Your task to perform on an android device: Go to privacy settings Image 0: 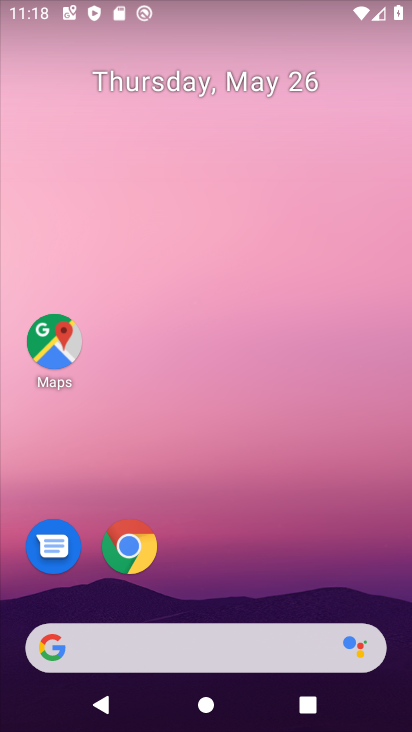
Step 0: click (129, 545)
Your task to perform on an android device: Go to privacy settings Image 1: 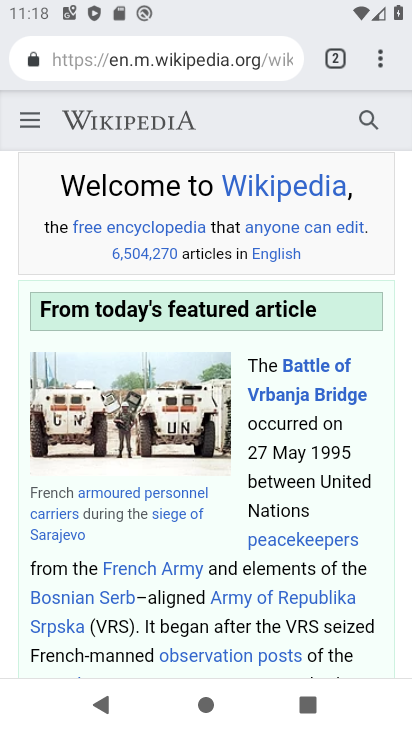
Step 1: click (362, 61)
Your task to perform on an android device: Go to privacy settings Image 2: 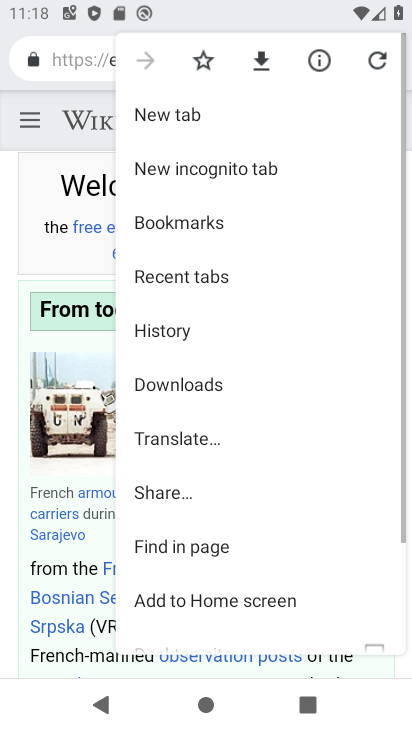
Step 2: drag from (192, 525) to (184, 186)
Your task to perform on an android device: Go to privacy settings Image 3: 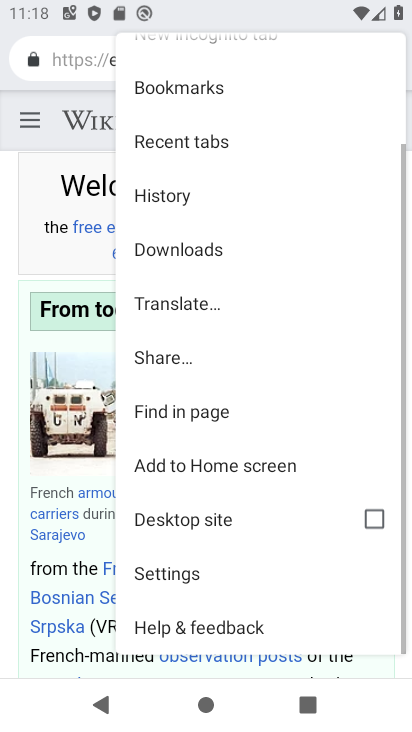
Step 3: click (144, 581)
Your task to perform on an android device: Go to privacy settings Image 4: 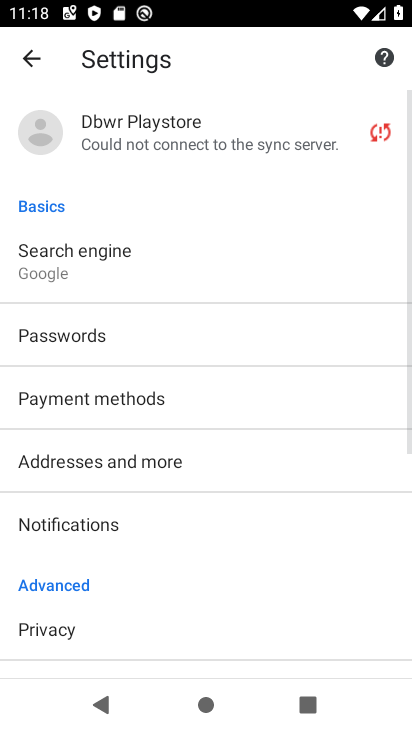
Step 4: click (86, 619)
Your task to perform on an android device: Go to privacy settings Image 5: 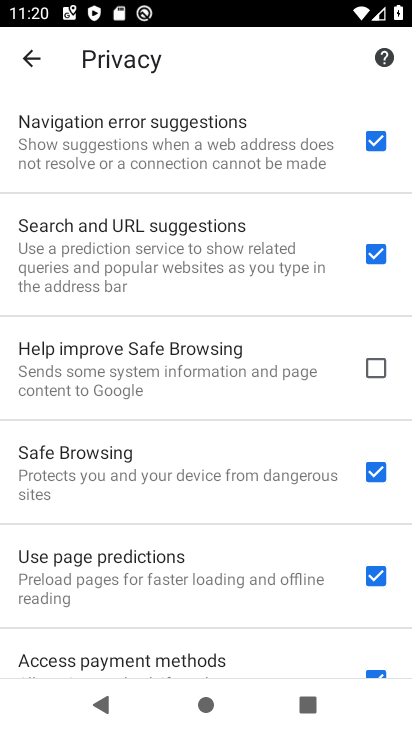
Step 5: task complete